Your task to perform on an android device: turn off sleep mode Image 0: 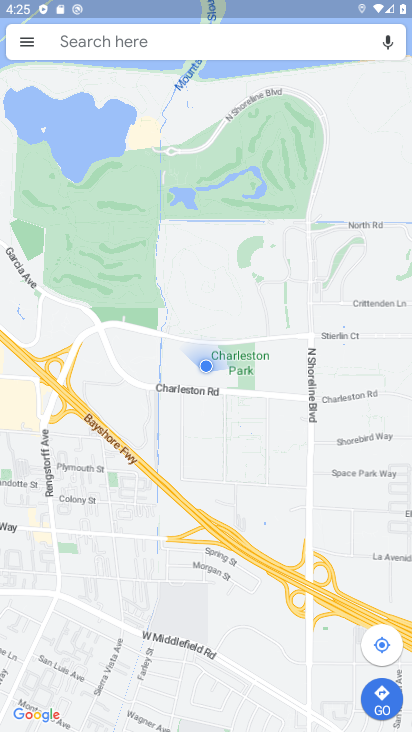
Step 0: press home button
Your task to perform on an android device: turn off sleep mode Image 1: 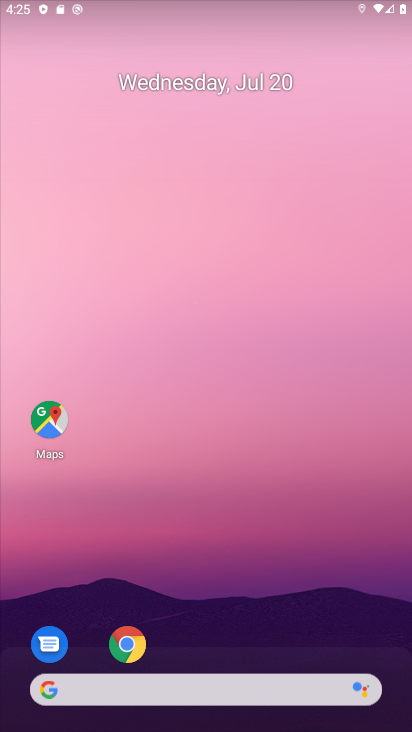
Step 1: drag from (241, 674) to (306, 153)
Your task to perform on an android device: turn off sleep mode Image 2: 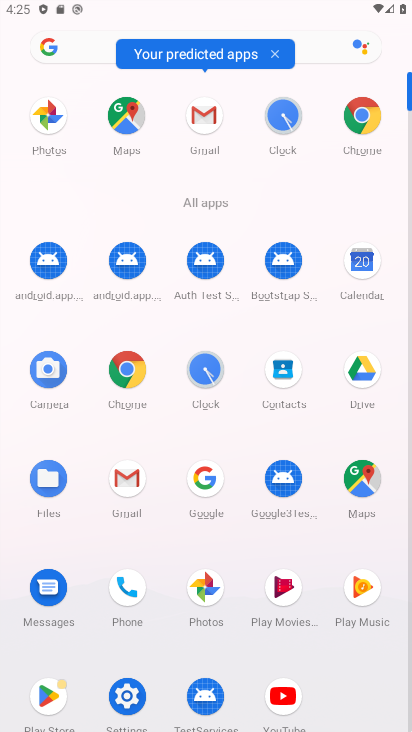
Step 2: click (135, 705)
Your task to perform on an android device: turn off sleep mode Image 3: 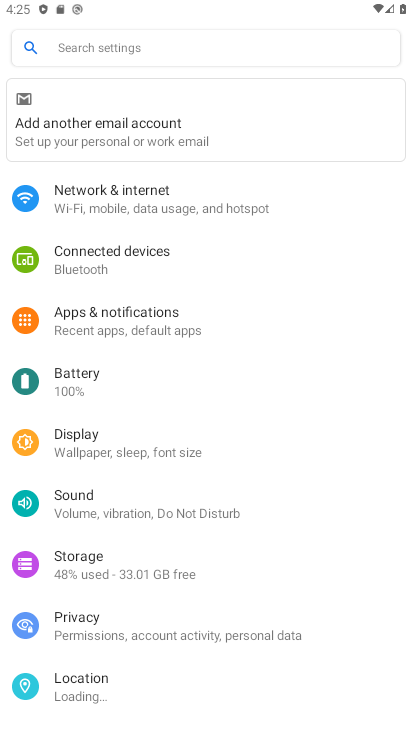
Step 3: click (129, 457)
Your task to perform on an android device: turn off sleep mode Image 4: 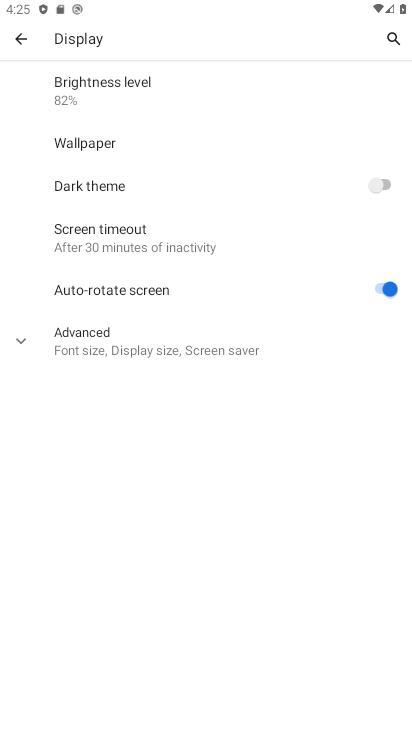
Step 4: click (105, 354)
Your task to perform on an android device: turn off sleep mode Image 5: 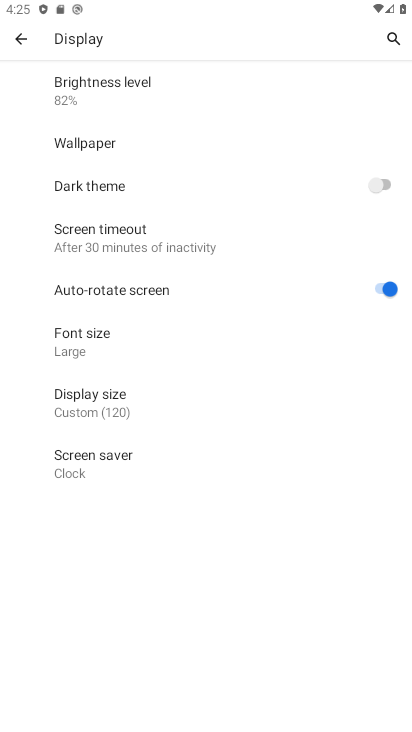
Step 5: task complete